Your task to perform on an android device: add a contact Image 0: 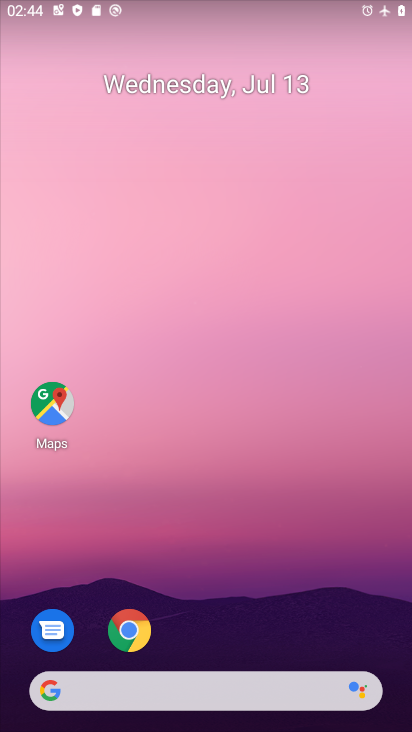
Step 0: drag from (211, 651) to (154, 236)
Your task to perform on an android device: add a contact Image 1: 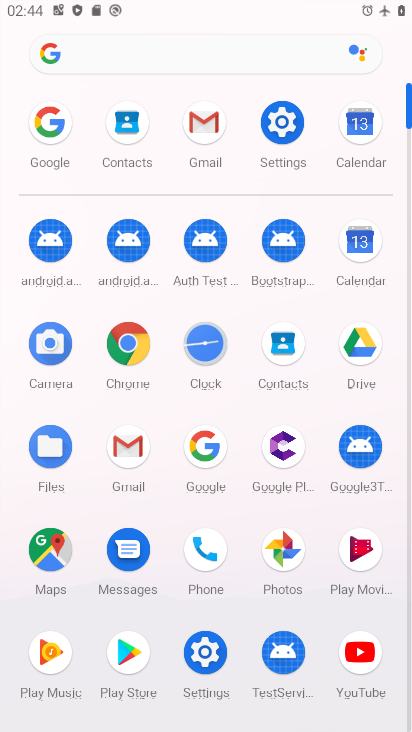
Step 1: click (277, 352)
Your task to perform on an android device: add a contact Image 2: 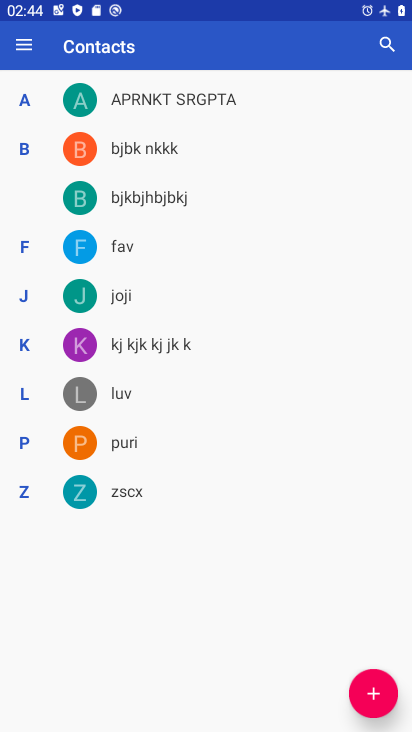
Step 2: click (372, 703)
Your task to perform on an android device: add a contact Image 3: 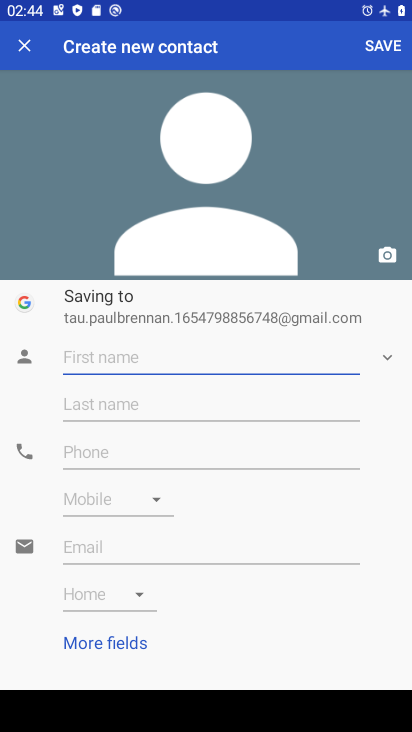
Step 3: click (159, 348)
Your task to perform on an android device: add a contact Image 4: 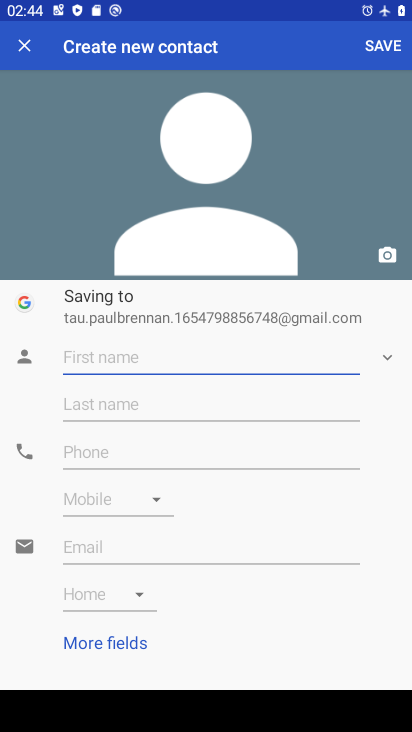
Step 4: type "kbkjbk"
Your task to perform on an android device: add a contact Image 5: 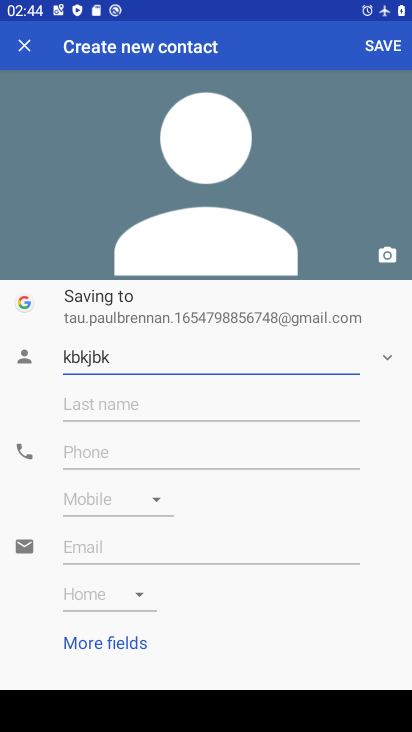
Step 5: click (109, 461)
Your task to perform on an android device: add a contact Image 6: 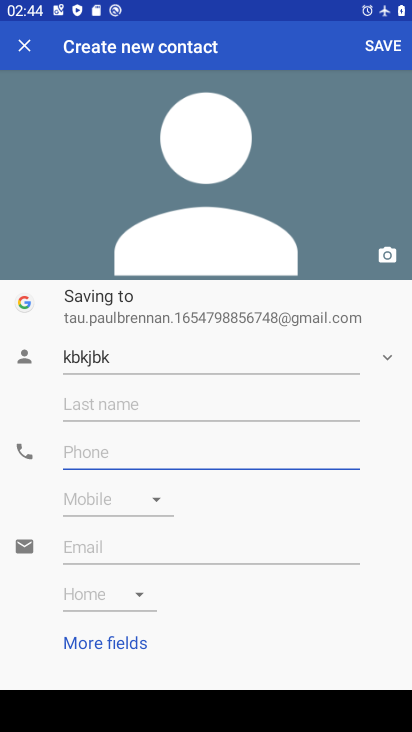
Step 6: type "87666898079"
Your task to perform on an android device: add a contact Image 7: 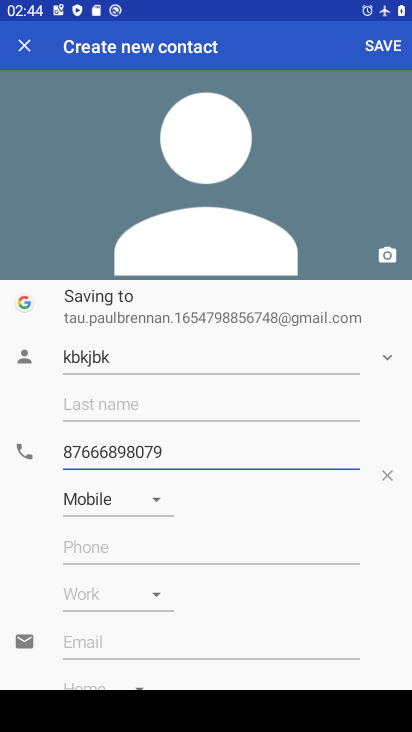
Step 7: click (389, 42)
Your task to perform on an android device: add a contact Image 8: 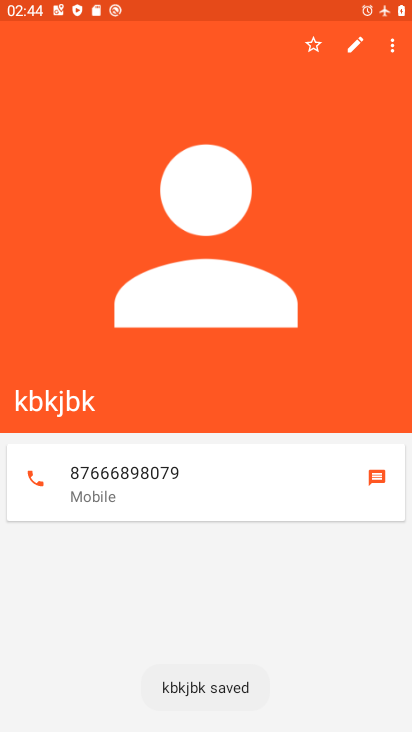
Step 8: task complete